Your task to perform on an android device: toggle notification dots Image 0: 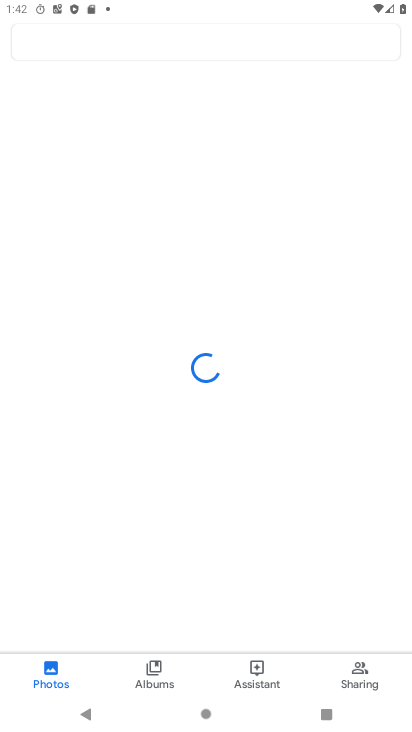
Step 0: press home button
Your task to perform on an android device: toggle notification dots Image 1: 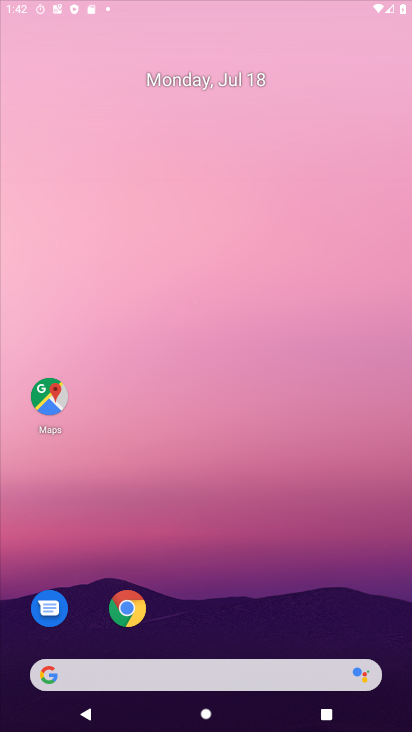
Step 1: press home button
Your task to perform on an android device: toggle notification dots Image 2: 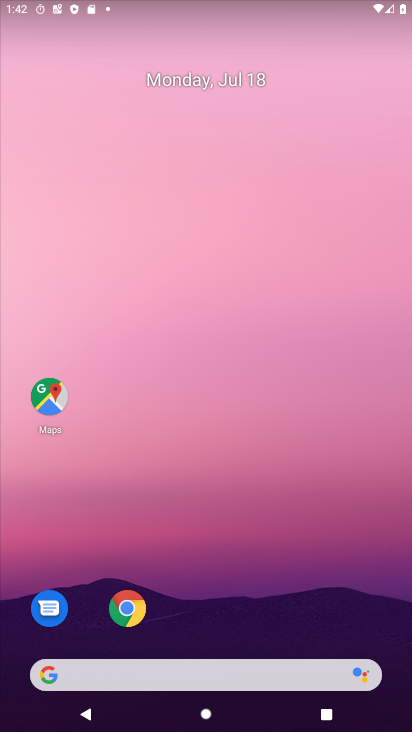
Step 2: drag from (243, 693) to (246, 266)
Your task to perform on an android device: toggle notification dots Image 3: 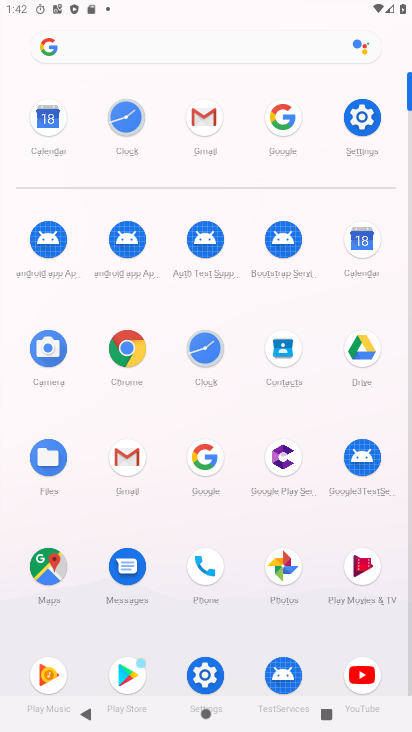
Step 3: click (360, 103)
Your task to perform on an android device: toggle notification dots Image 4: 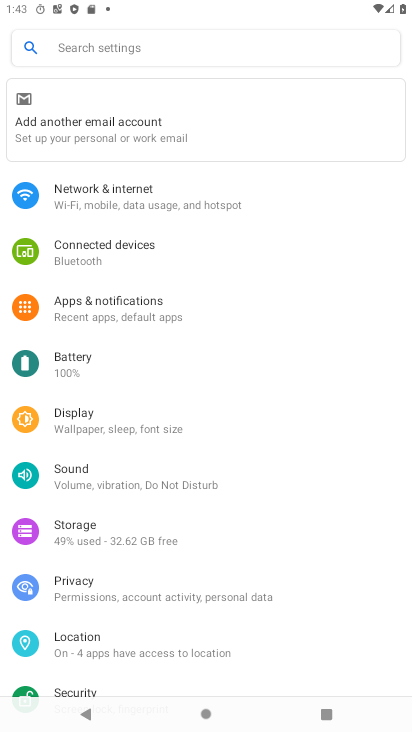
Step 4: click (97, 295)
Your task to perform on an android device: toggle notification dots Image 5: 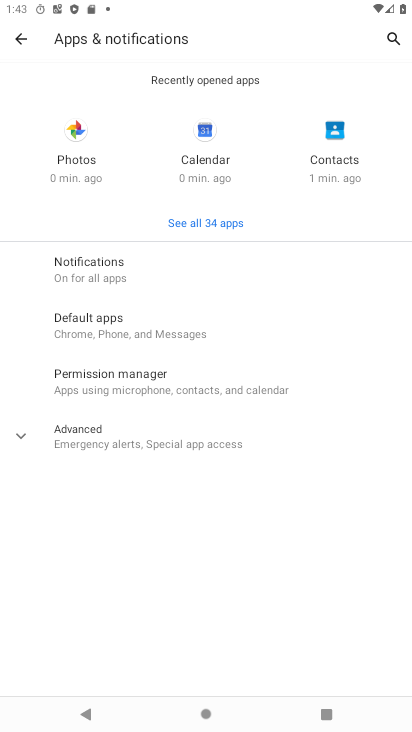
Step 5: click (84, 266)
Your task to perform on an android device: toggle notification dots Image 6: 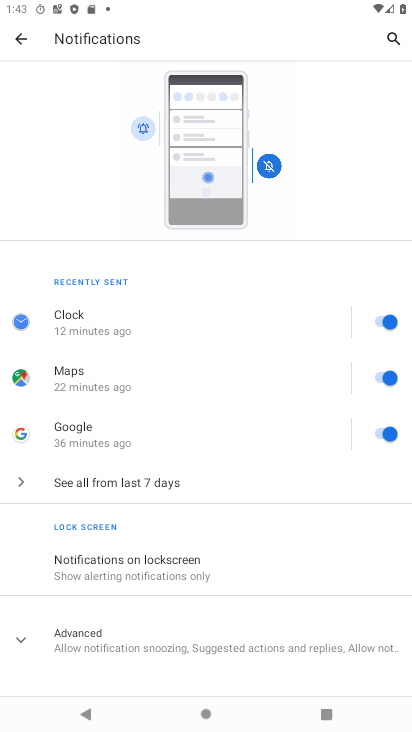
Step 6: click (237, 647)
Your task to perform on an android device: toggle notification dots Image 7: 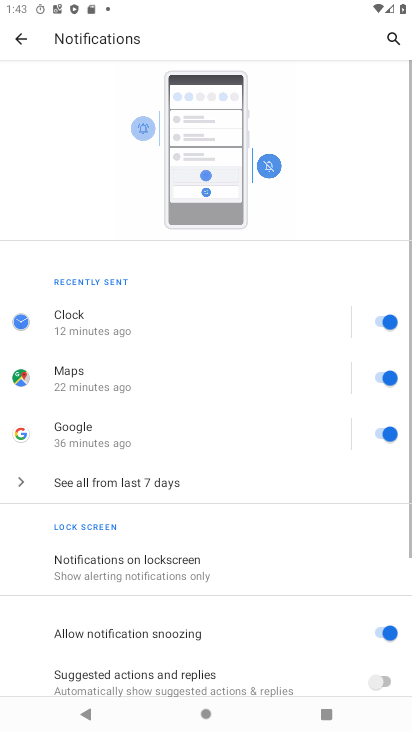
Step 7: drag from (244, 634) to (241, 382)
Your task to perform on an android device: toggle notification dots Image 8: 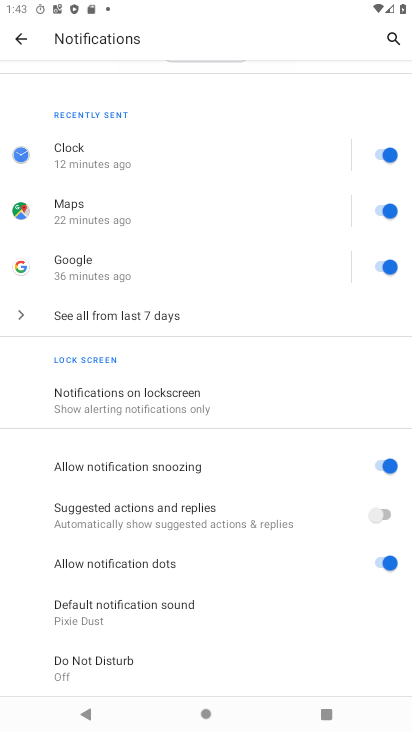
Step 8: click (383, 562)
Your task to perform on an android device: toggle notification dots Image 9: 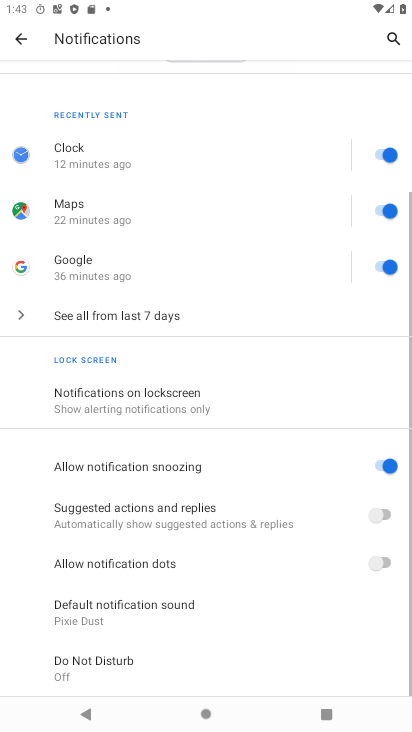
Step 9: task complete